Your task to perform on an android device: Go to display settings Image 0: 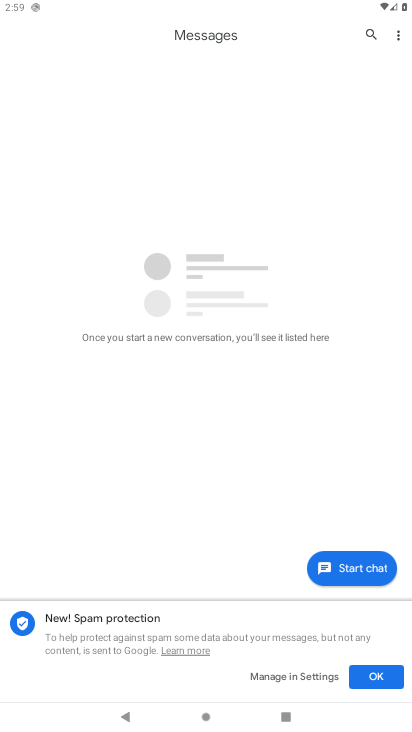
Step 0: press home button
Your task to perform on an android device: Go to display settings Image 1: 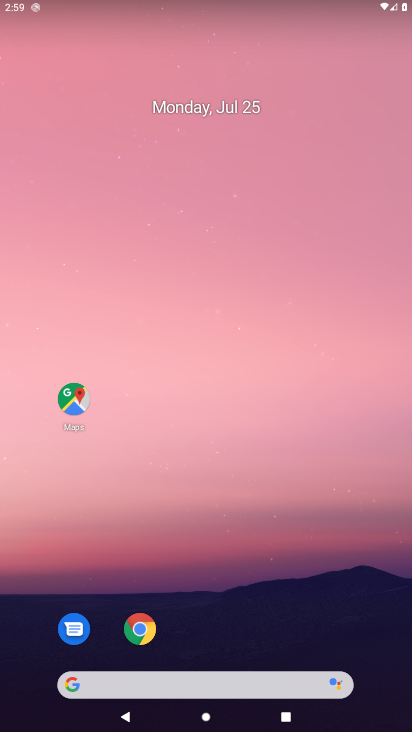
Step 1: drag from (35, 703) to (236, 108)
Your task to perform on an android device: Go to display settings Image 2: 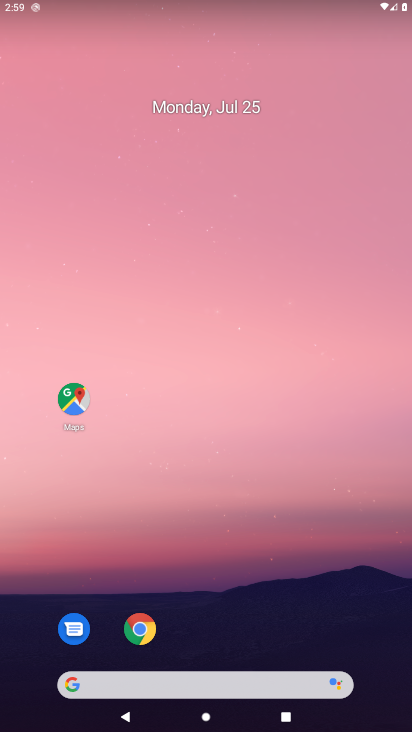
Step 2: drag from (15, 692) to (127, 142)
Your task to perform on an android device: Go to display settings Image 3: 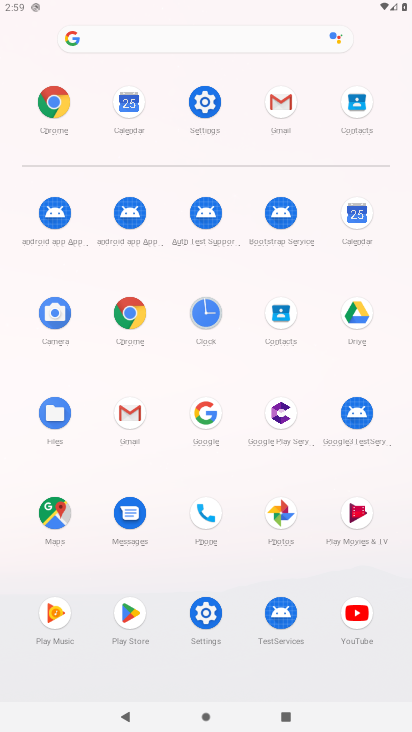
Step 3: click (210, 618)
Your task to perform on an android device: Go to display settings Image 4: 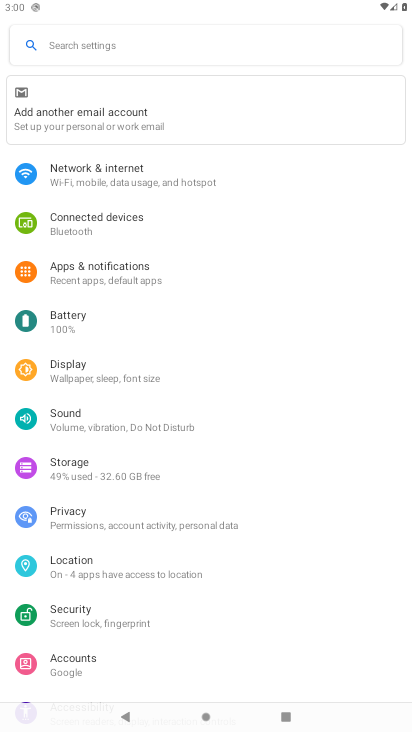
Step 4: click (81, 358)
Your task to perform on an android device: Go to display settings Image 5: 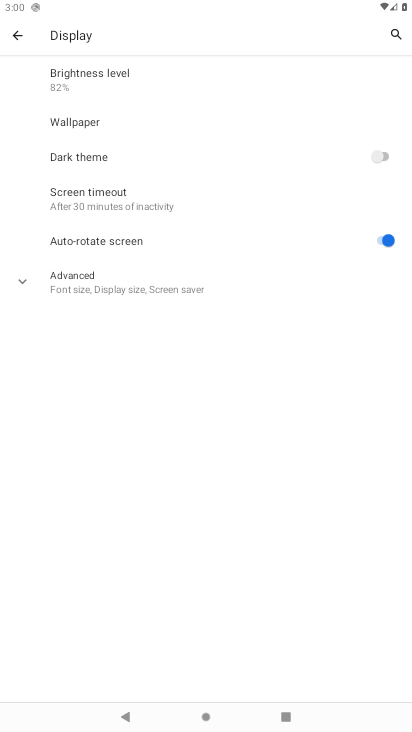
Step 5: task complete